Your task to perform on an android device: What's the weather today? Image 0: 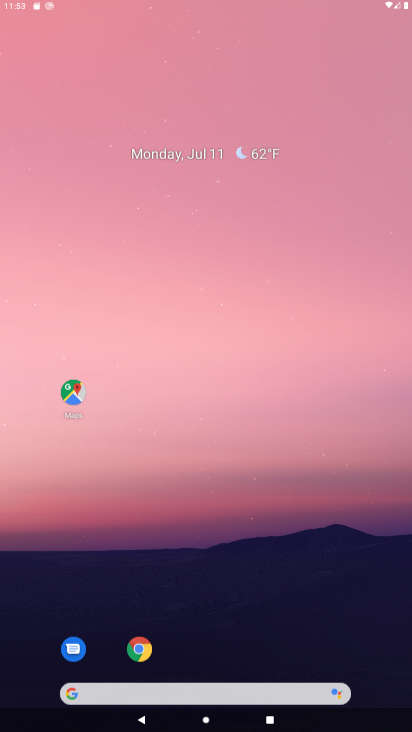
Step 0: click (138, 647)
Your task to perform on an android device: What's the weather today? Image 1: 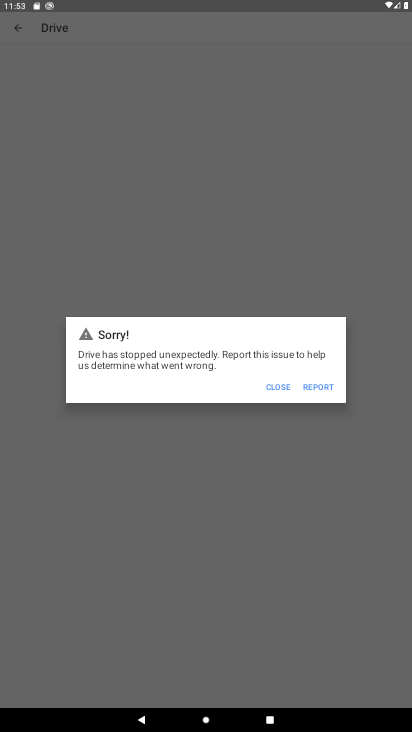
Step 1: press home button
Your task to perform on an android device: What's the weather today? Image 2: 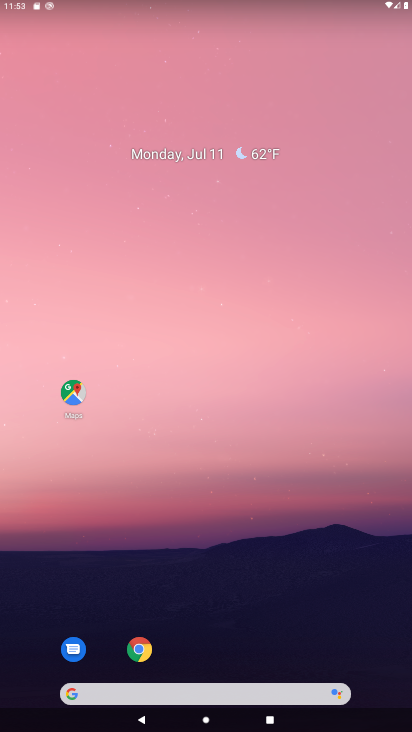
Step 2: click (238, 695)
Your task to perform on an android device: What's the weather today? Image 3: 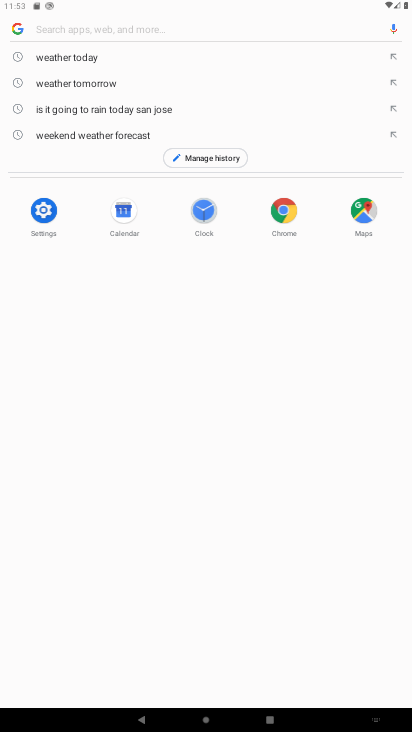
Step 3: click (56, 55)
Your task to perform on an android device: What's the weather today? Image 4: 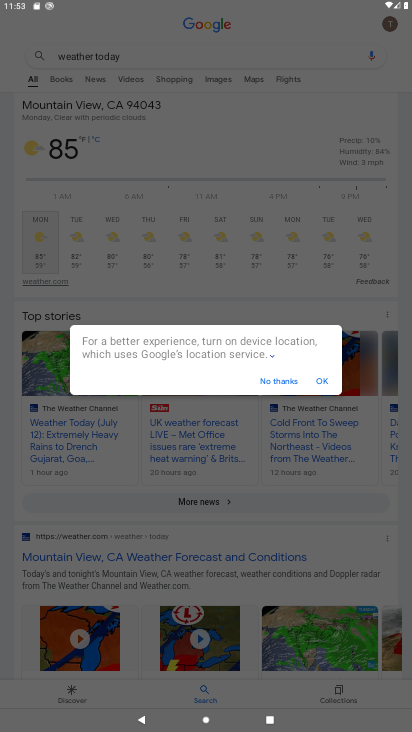
Step 4: click (324, 378)
Your task to perform on an android device: What's the weather today? Image 5: 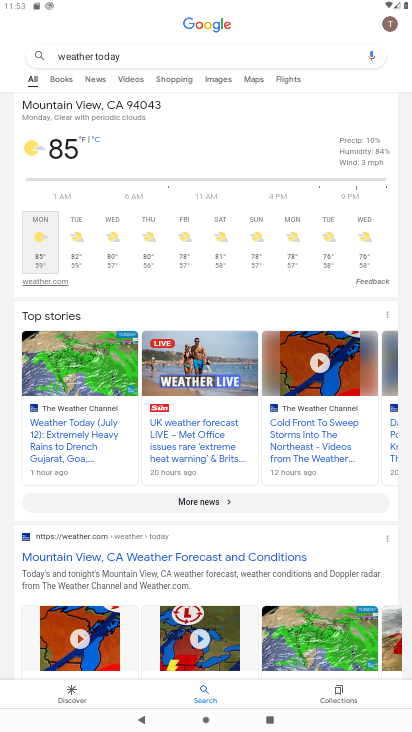
Step 5: task complete